Your task to perform on an android device: Open the web browser Image 0: 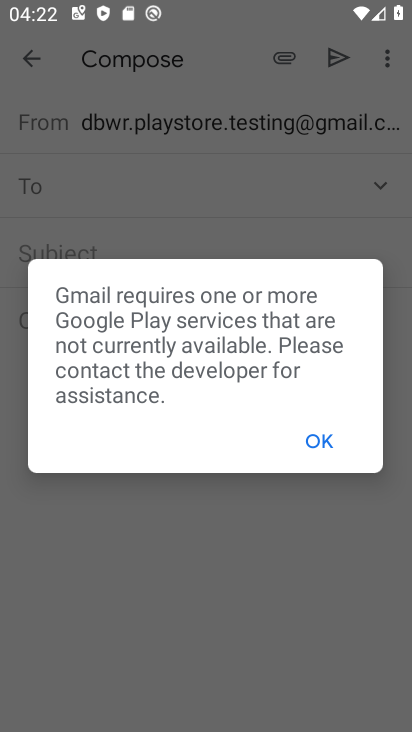
Step 0: press back button
Your task to perform on an android device: Open the web browser Image 1: 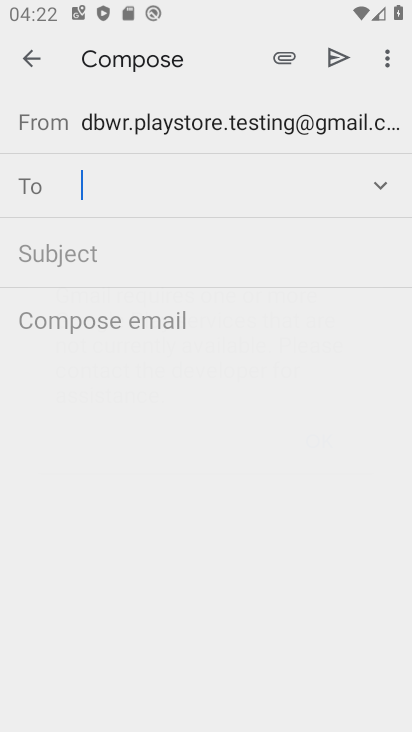
Step 1: press back button
Your task to perform on an android device: Open the web browser Image 2: 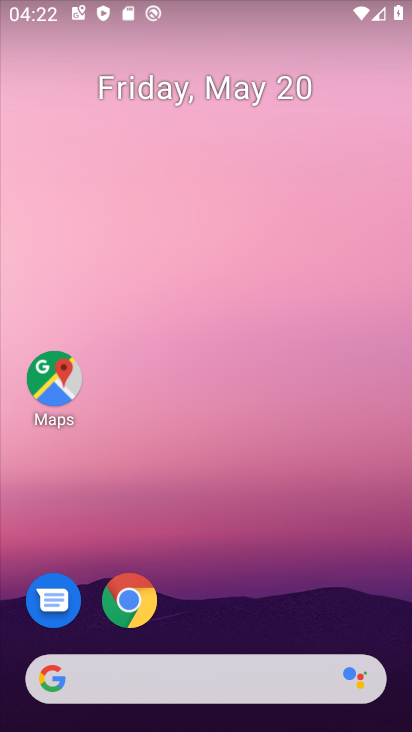
Step 2: drag from (244, 568) to (250, 32)
Your task to perform on an android device: Open the web browser Image 3: 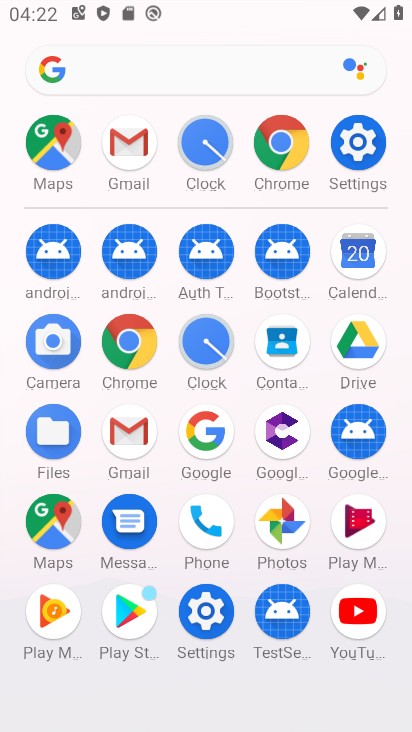
Step 3: click (123, 335)
Your task to perform on an android device: Open the web browser Image 4: 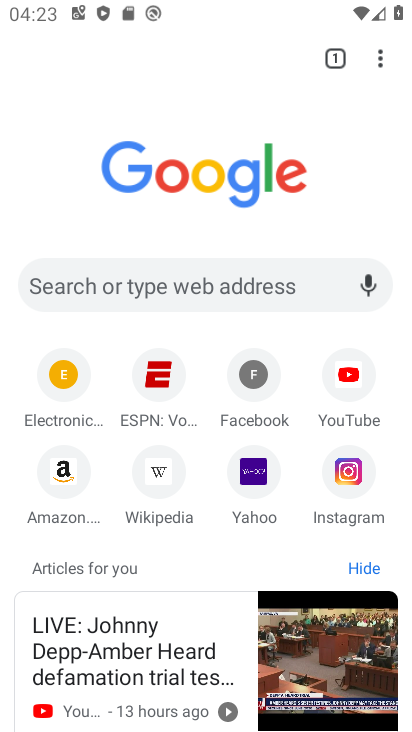
Step 4: task complete